Your task to perform on an android device: toggle notification dots Image 0: 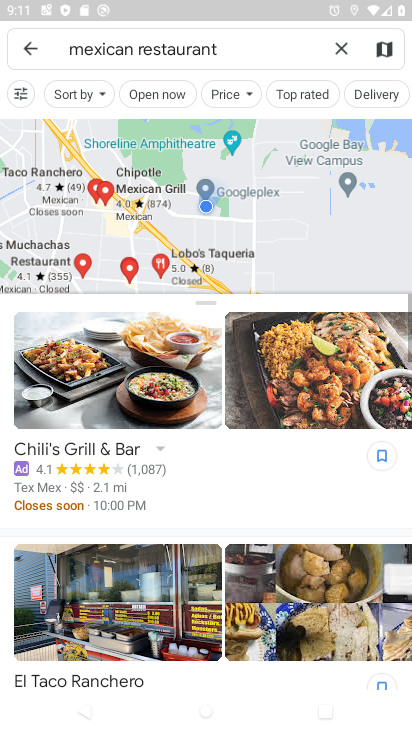
Step 0: press back button
Your task to perform on an android device: toggle notification dots Image 1: 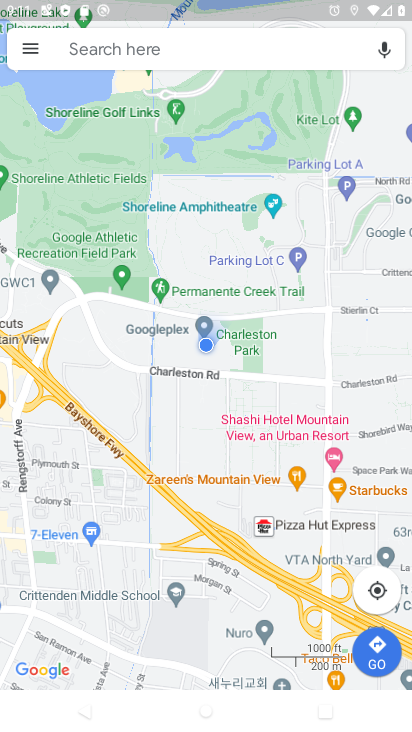
Step 1: press back button
Your task to perform on an android device: toggle notification dots Image 2: 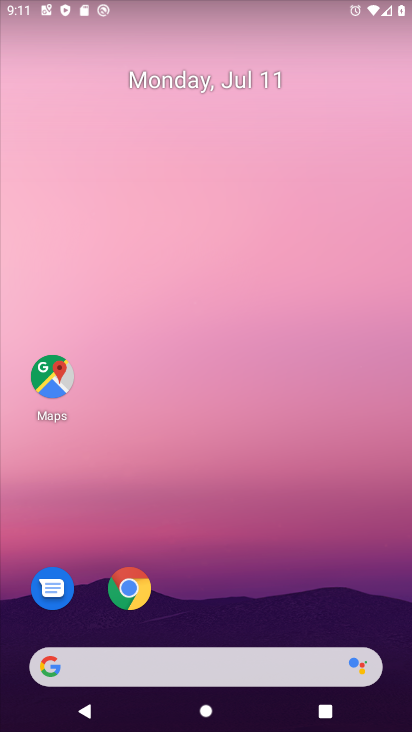
Step 2: drag from (267, 588) to (217, 44)
Your task to perform on an android device: toggle notification dots Image 3: 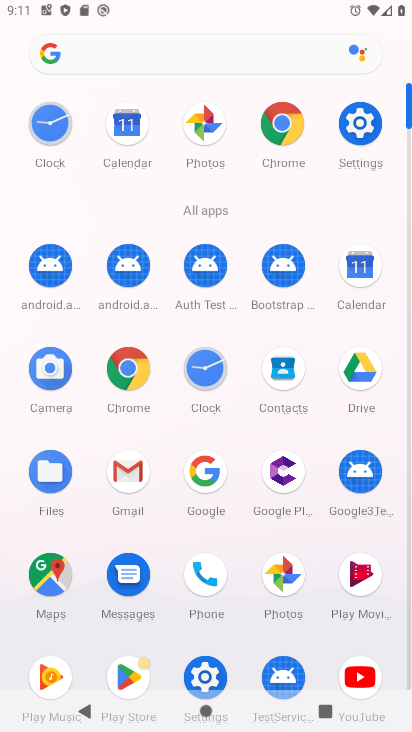
Step 3: click (345, 128)
Your task to perform on an android device: toggle notification dots Image 4: 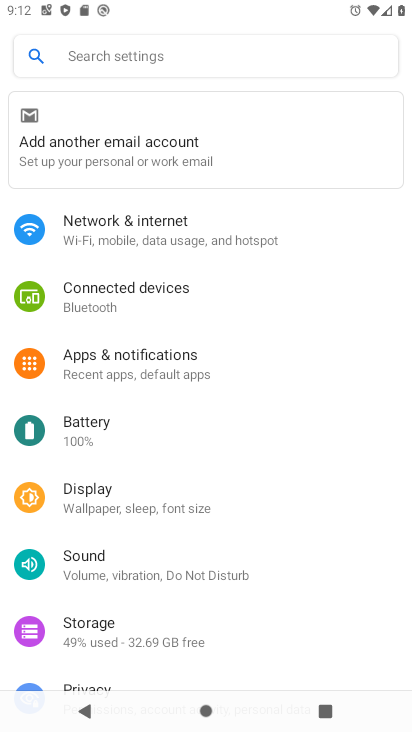
Step 4: click (155, 369)
Your task to perform on an android device: toggle notification dots Image 5: 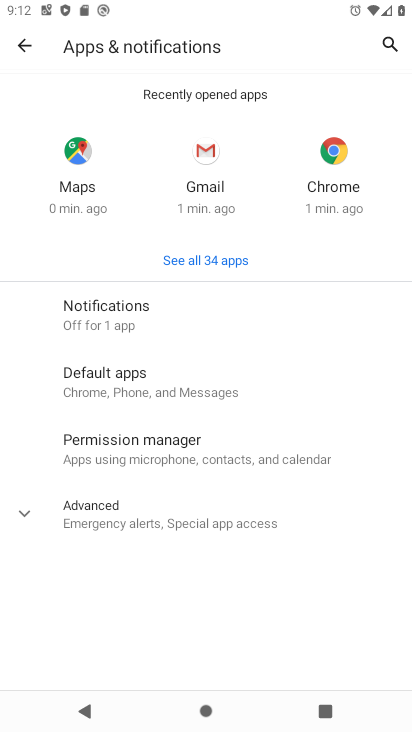
Step 5: click (111, 311)
Your task to perform on an android device: toggle notification dots Image 6: 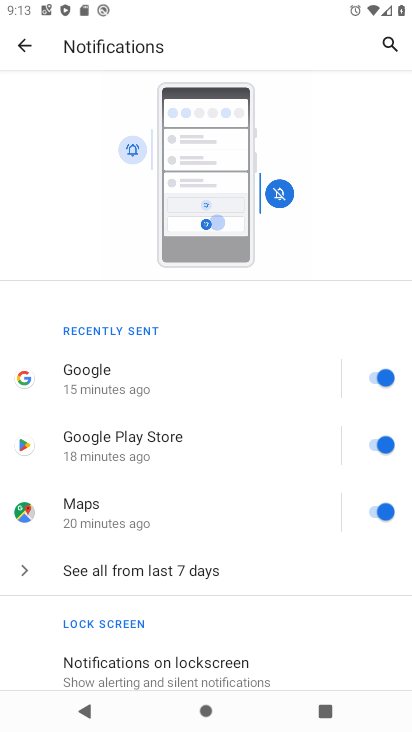
Step 6: drag from (192, 635) to (239, 239)
Your task to perform on an android device: toggle notification dots Image 7: 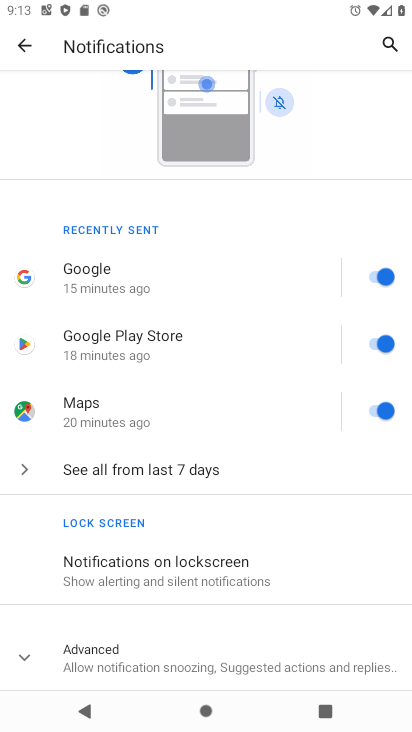
Step 7: click (170, 657)
Your task to perform on an android device: toggle notification dots Image 8: 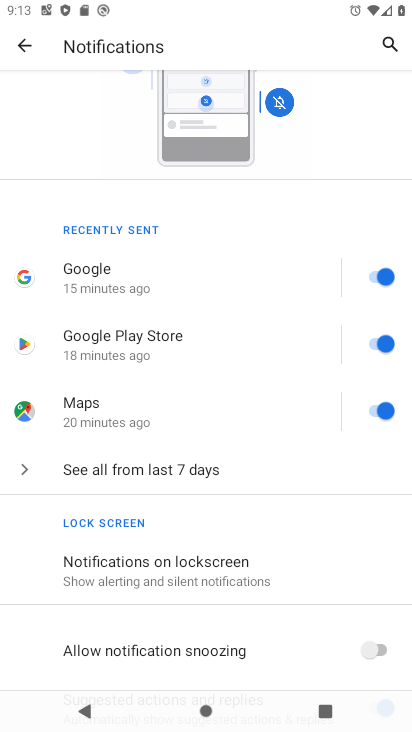
Step 8: drag from (185, 636) to (231, 207)
Your task to perform on an android device: toggle notification dots Image 9: 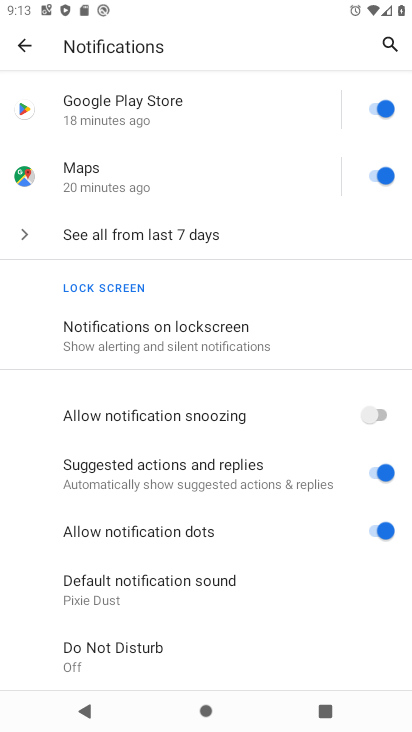
Step 9: click (381, 529)
Your task to perform on an android device: toggle notification dots Image 10: 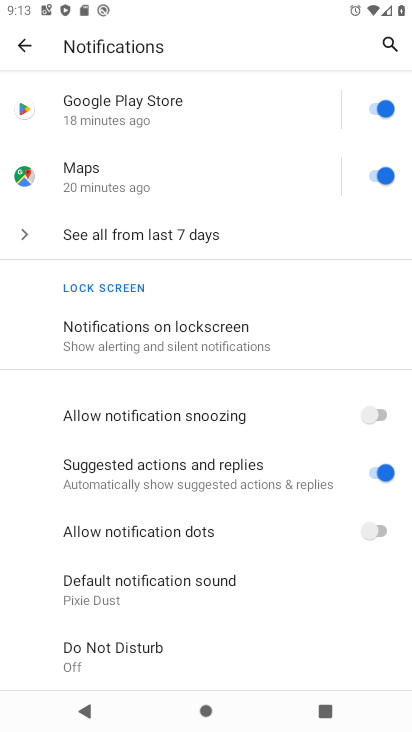
Step 10: task complete